Your task to perform on an android device: turn notification dots off Image 0: 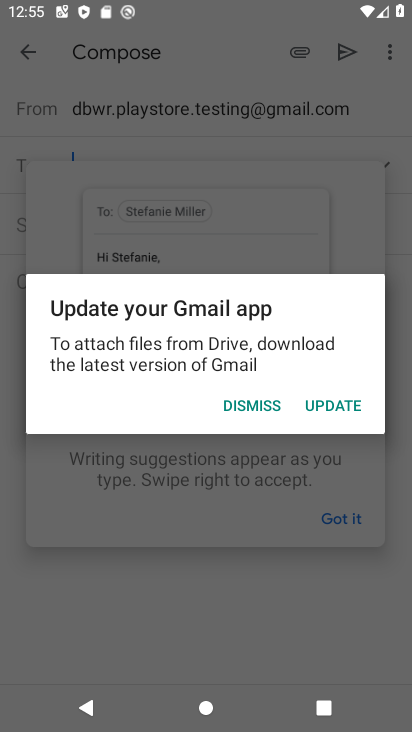
Step 0: press back button
Your task to perform on an android device: turn notification dots off Image 1: 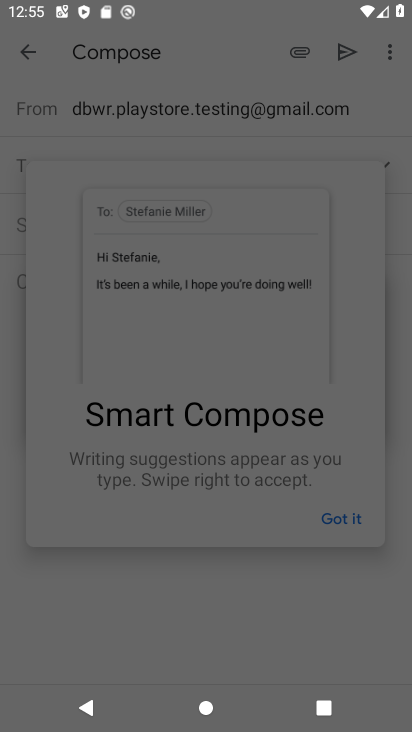
Step 1: press home button
Your task to perform on an android device: turn notification dots off Image 2: 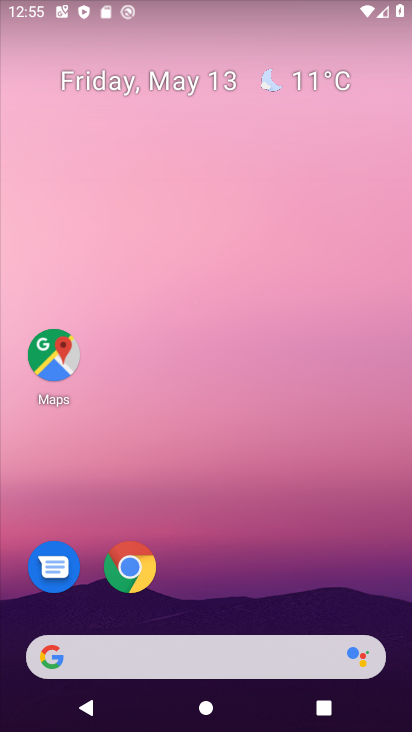
Step 2: drag from (151, 640) to (285, 40)
Your task to perform on an android device: turn notification dots off Image 3: 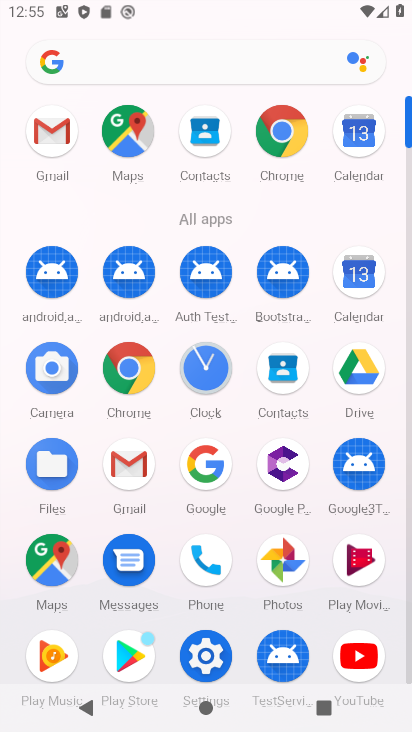
Step 3: drag from (165, 579) to (214, 369)
Your task to perform on an android device: turn notification dots off Image 4: 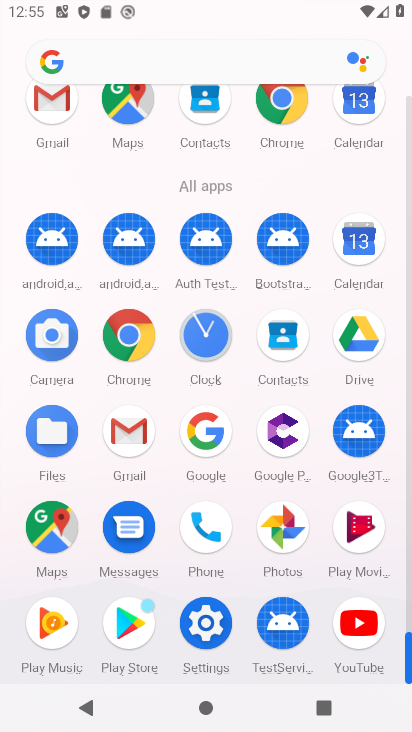
Step 4: click (206, 635)
Your task to perform on an android device: turn notification dots off Image 5: 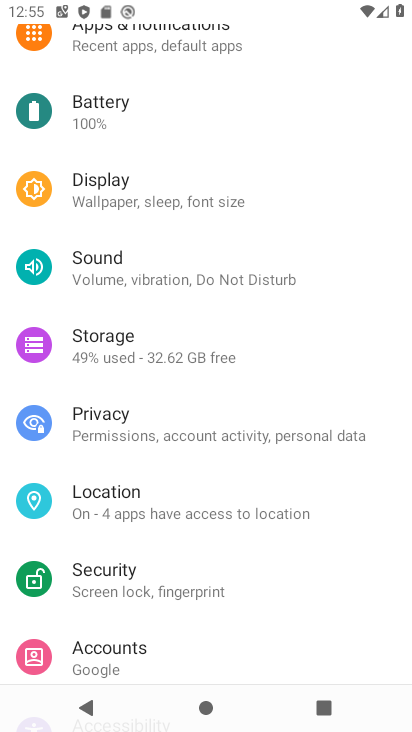
Step 5: click (205, 43)
Your task to perform on an android device: turn notification dots off Image 6: 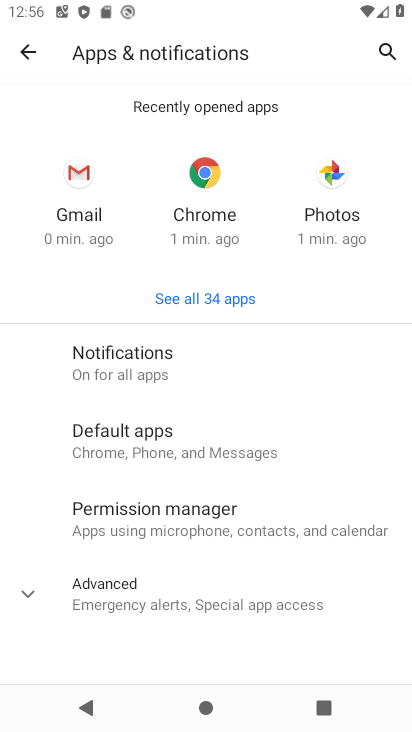
Step 6: click (214, 372)
Your task to perform on an android device: turn notification dots off Image 7: 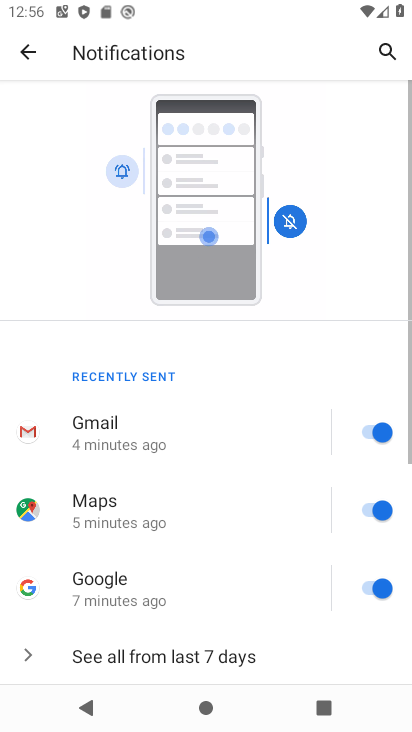
Step 7: drag from (174, 636) to (276, 178)
Your task to perform on an android device: turn notification dots off Image 8: 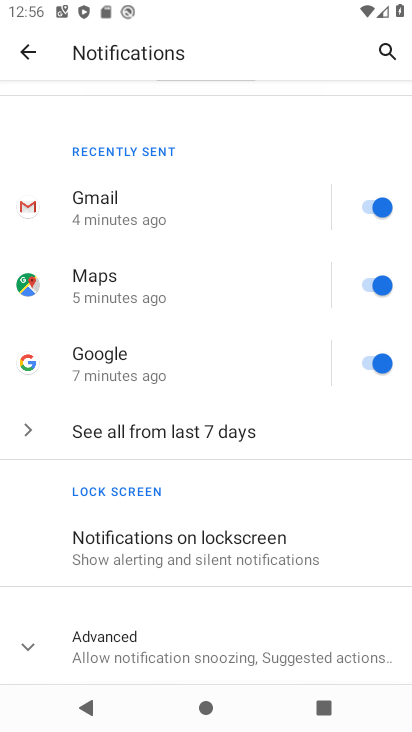
Step 8: click (160, 657)
Your task to perform on an android device: turn notification dots off Image 9: 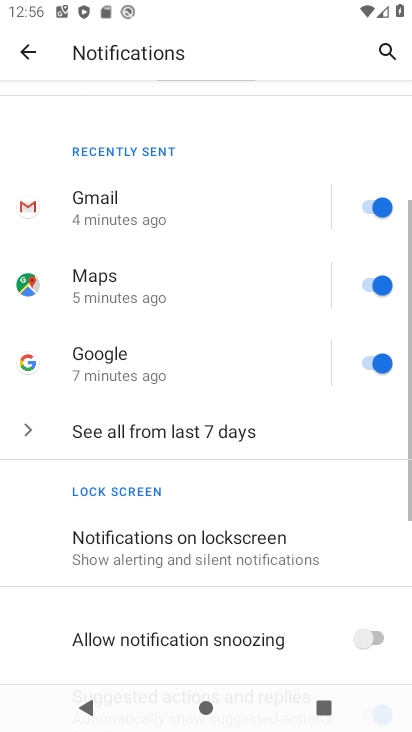
Step 9: drag from (161, 656) to (261, 219)
Your task to perform on an android device: turn notification dots off Image 10: 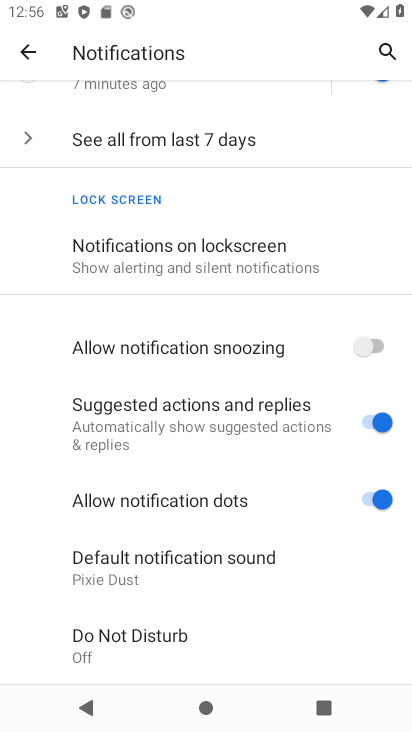
Step 10: click (369, 490)
Your task to perform on an android device: turn notification dots off Image 11: 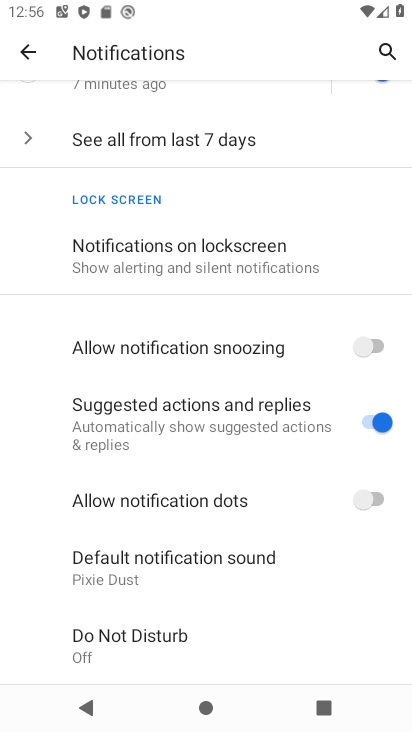
Step 11: task complete